Your task to perform on an android device: Open Google Maps Image 0: 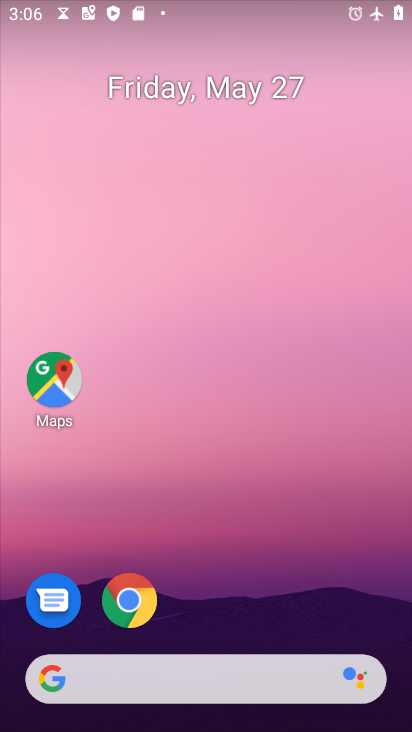
Step 0: drag from (260, 514) to (183, 49)
Your task to perform on an android device: Open Google Maps Image 1: 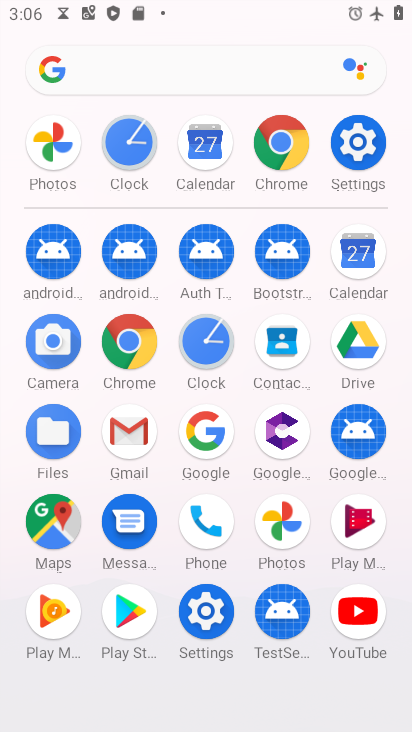
Step 1: click (55, 524)
Your task to perform on an android device: Open Google Maps Image 2: 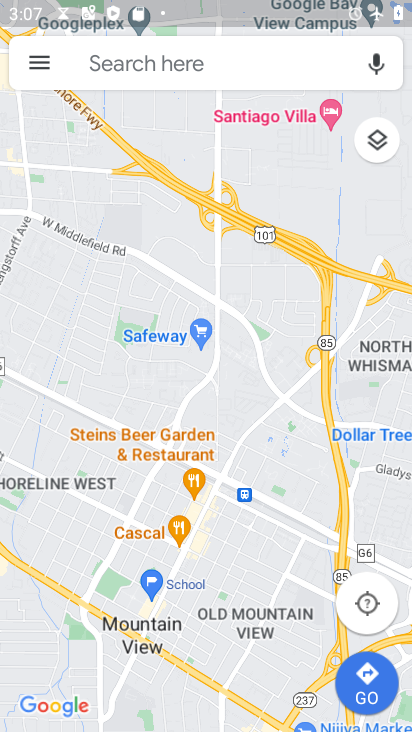
Step 2: task complete